Your task to perform on an android device: Go to Maps Image 0: 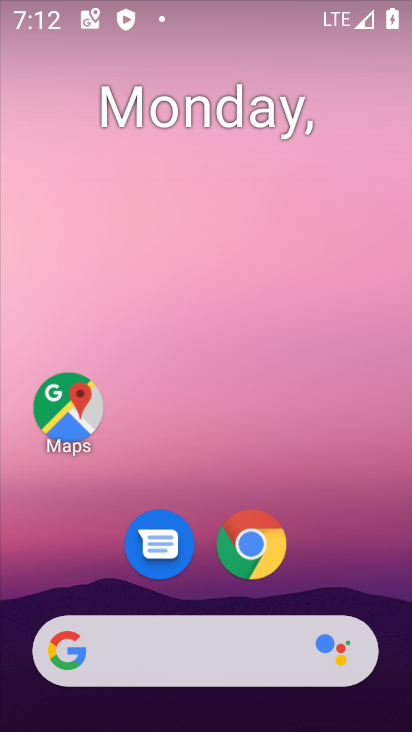
Step 0: click (72, 405)
Your task to perform on an android device: Go to Maps Image 1: 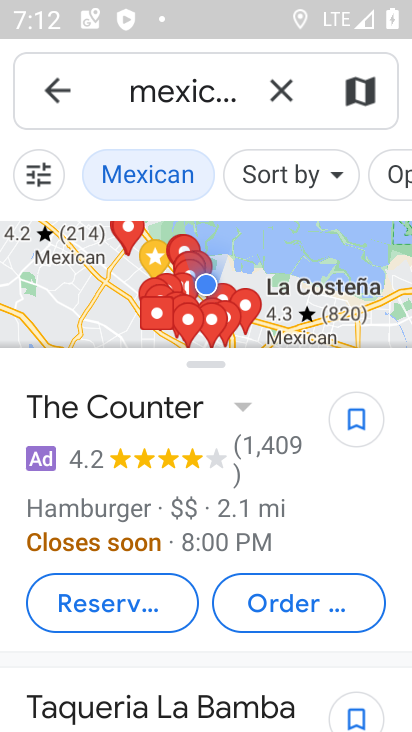
Step 1: click (278, 92)
Your task to perform on an android device: Go to Maps Image 2: 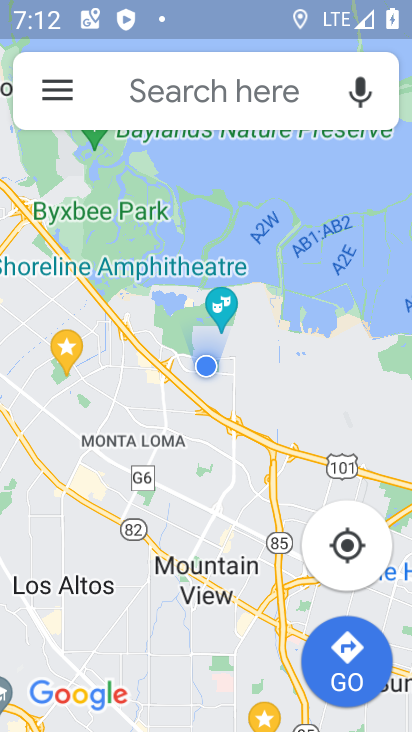
Step 2: task complete